Your task to perform on an android device: set default search engine in the chrome app Image 0: 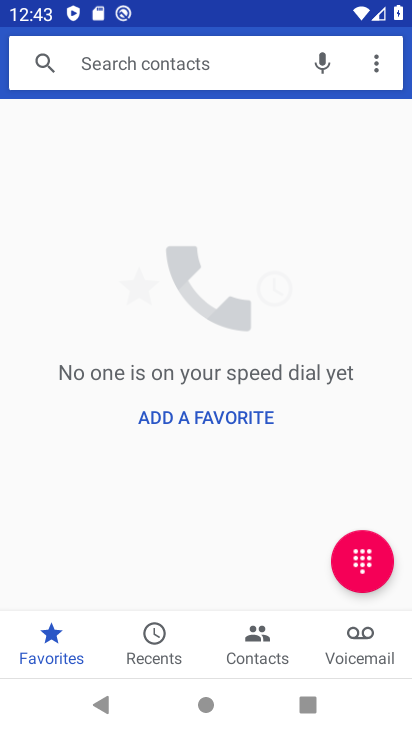
Step 0: press home button
Your task to perform on an android device: set default search engine in the chrome app Image 1: 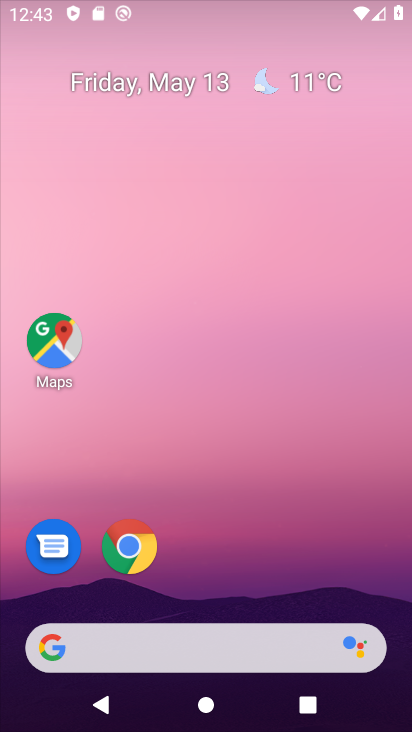
Step 1: drag from (221, 649) to (264, 228)
Your task to perform on an android device: set default search engine in the chrome app Image 2: 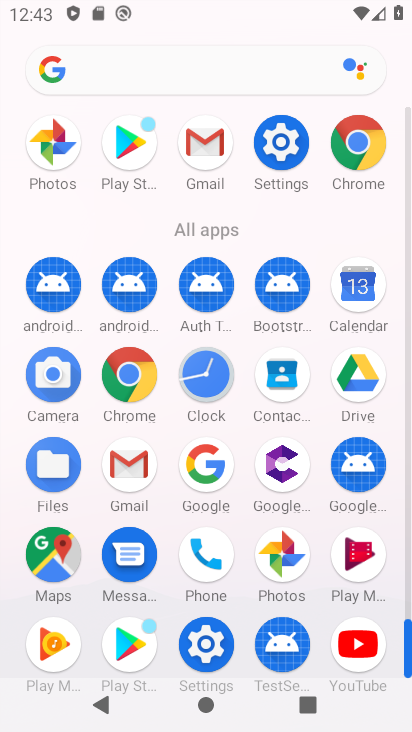
Step 2: click (356, 182)
Your task to perform on an android device: set default search engine in the chrome app Image 3: 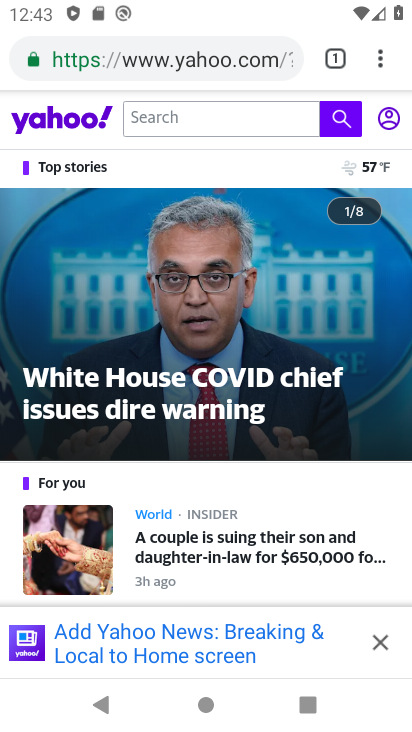
Step 3: click (382, 76)
Your task to perform on an android device: set default search engine in the chrome app Image 4: 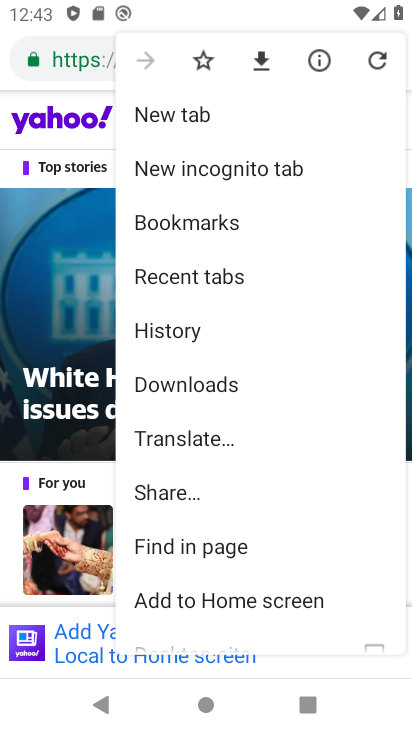
Step 4: drag from (255, 453) to (244, 111)
Your task to perform on an android device: set default search engine in the chrome app Image 5: 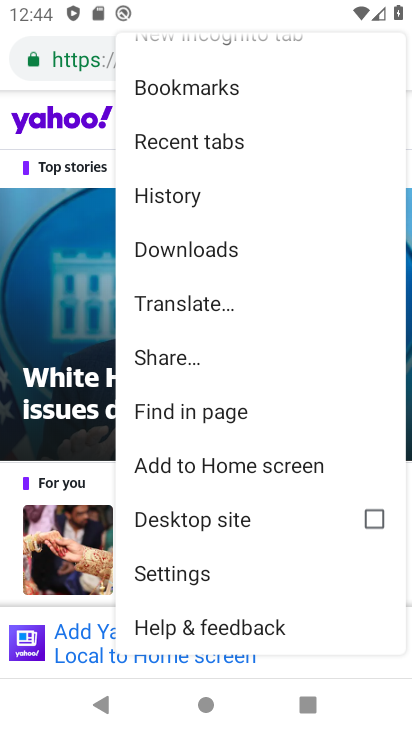
Step 5: click (229, 578)
Your task to perform on an android device: set default search engine in the chrome app Image 6: 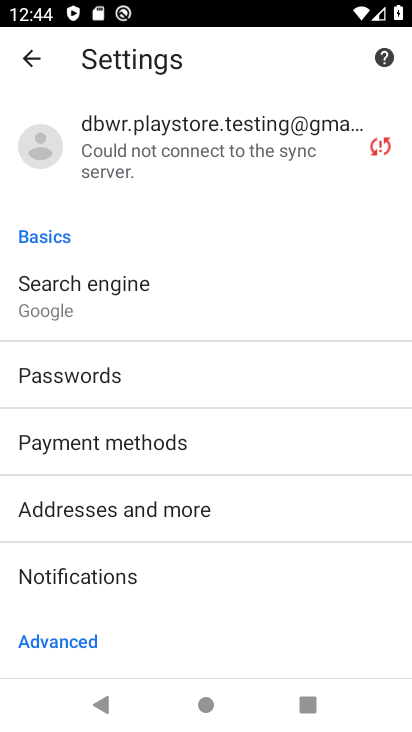
Step 6: click (187, 306)
Your task to perform on an android device: set default search engine in the chrome app Image 7: 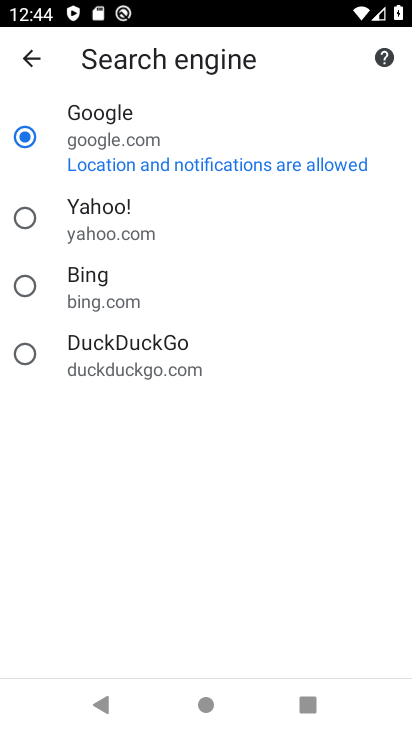
Step 7: task complete